Your task to perform on an android device: open app "PlayWell" (install if not already installed), go to login, and select forgot password Image 0: 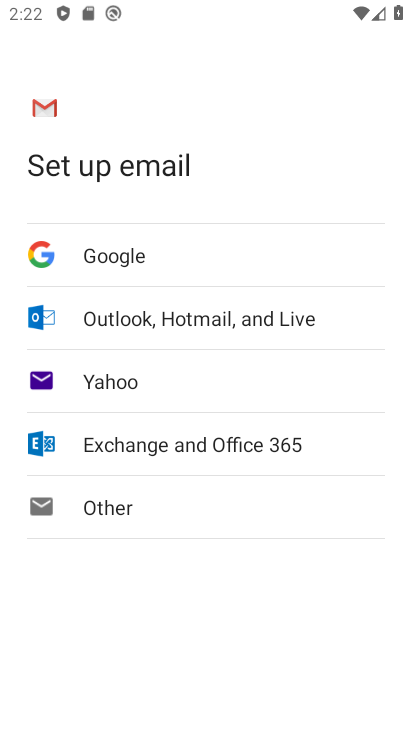
Step 0: press back button
Your task to perform on an android device: open app "PlayWell" (install if not already installed), go to login, and select forgot password Image 1: 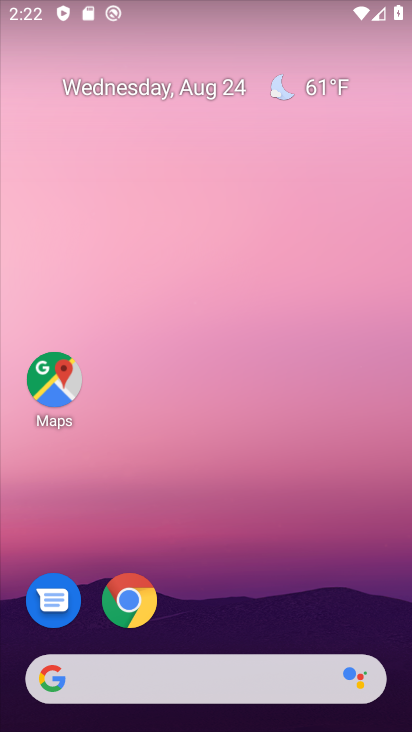
Step 1: drag from (211, 613) to (296, 97)
Your task to perform on an android device: open app "PlayWell" (install if not already installed), go to login, and select forgot password Image 2: 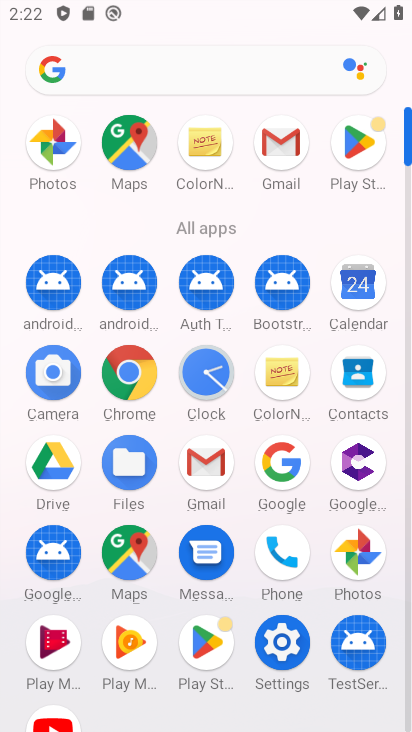
Step 2: click (364, 143)
Your task to perform on an android device: open app "PlayWell" (install if not already installed), go to login, and select forgot password Image 3: 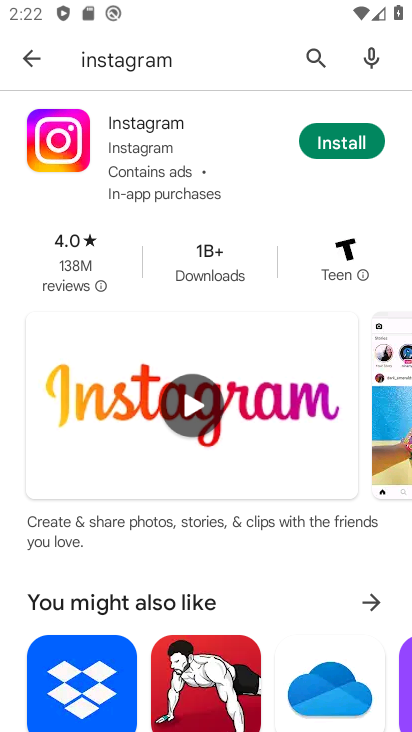
Step 3: click (309, 60)
Your task to perform on an android device: open app "PlayWell" (install if not already installed), go to login, and select forgot password Image 4: 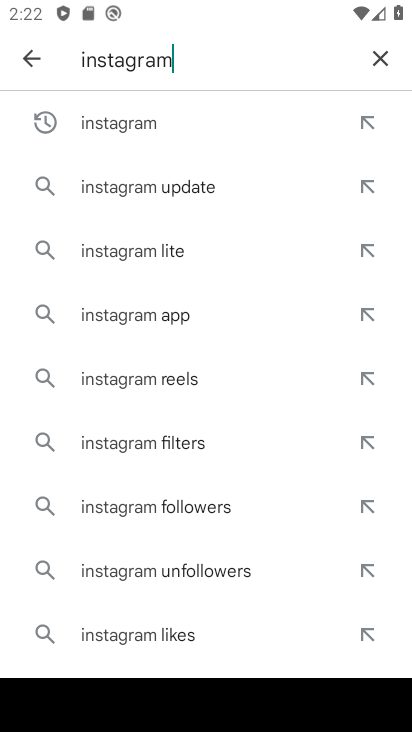
Step 4: click (383, 56)
Your task to perform on an android device: open app "PlayWell" (install if not already installed), go to login, and select forgot password Image 5: 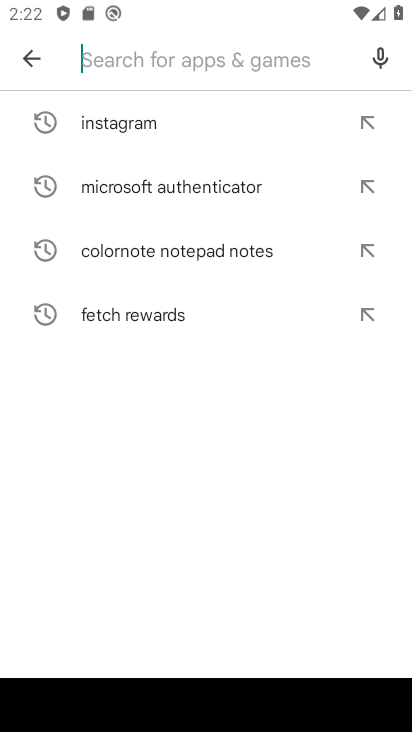
Step 5: type "playwell"
Your task to perform on an android device: open app "PlayWell" (install if not already installed), go to login, and select forgot password Image 6: 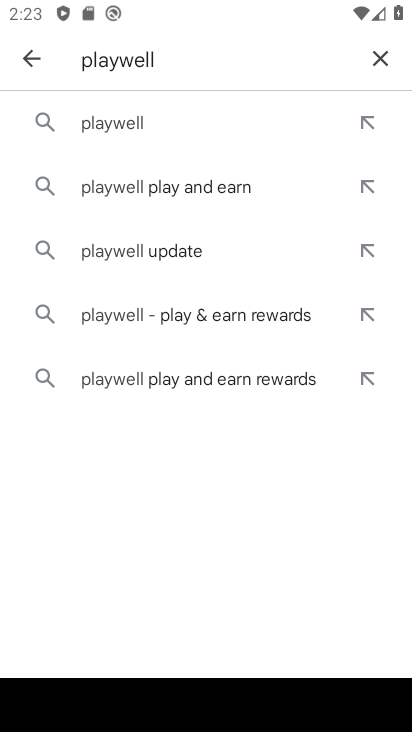
Step 6: click (110, 124)
Your task to perform on an android device: open app "PlayWell" (install if not already installed), go to login, and select forgot password Image 7: 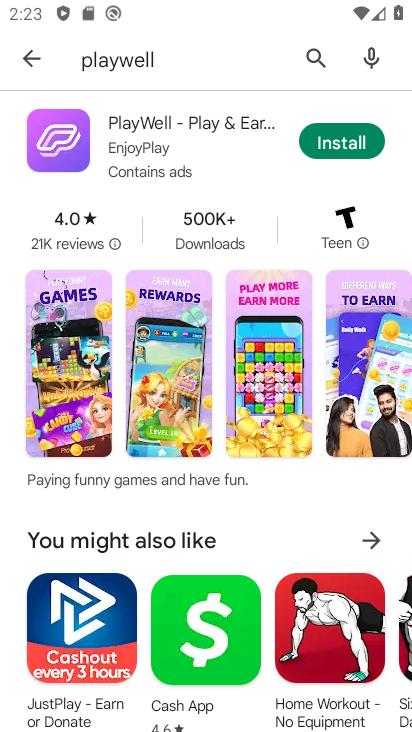
Step 7: click (333, 137)
Your task to perform on an android device: open app "PlayWell" (install if not already installed), go to login, and select forgot password Image 8: 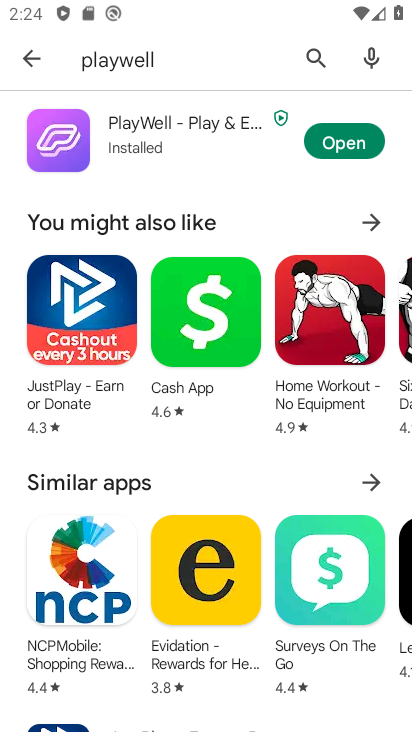
Step 8: click (334, 149)
Your task to perform on an android device: open app "PlayWell" (install if not already installed), go to login, and select forgot password Image 9: 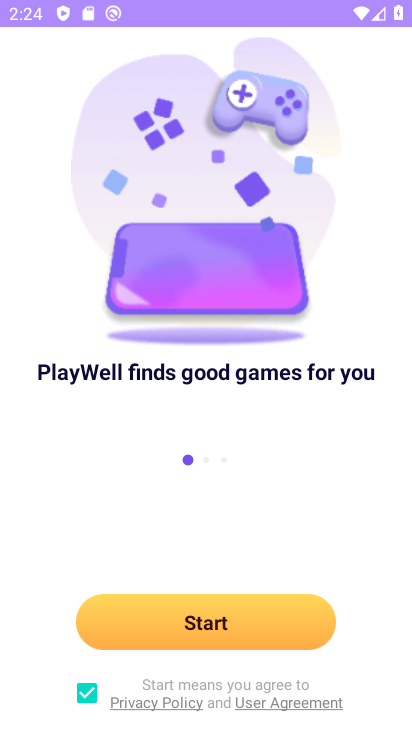
Step 9: click (207, 619)
Your task to perform on an android device: open app "PlayWell" (install if not already installed), go to login, and select forgot password Image 10: 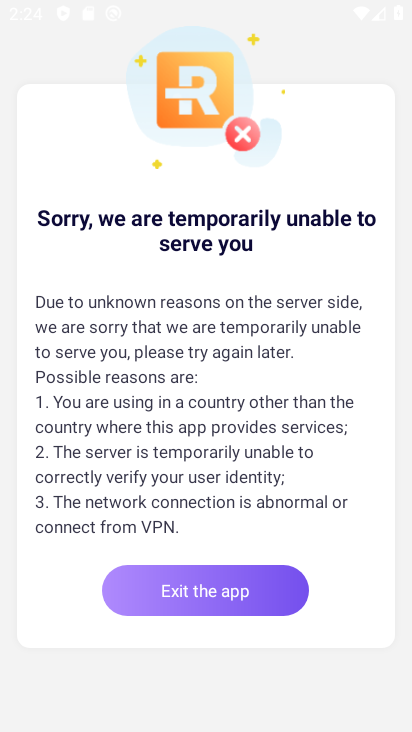
Step 10: task complete